Your task to perform on an android device: Open calendar and show me the second week of next month Image 0: 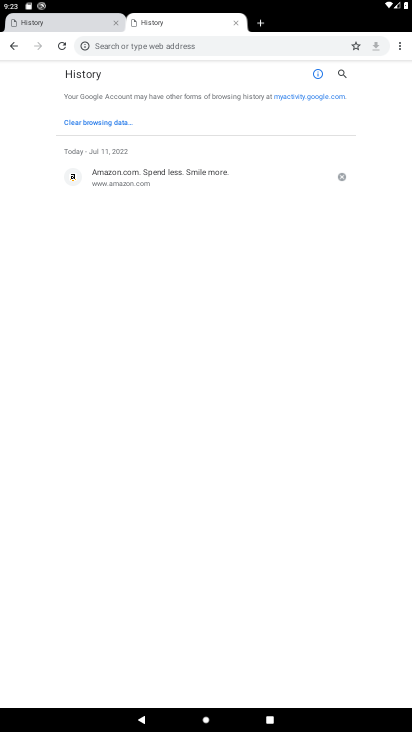
Step 0: press home button
Your task to perform on an android device: Open calendar and show me the second week of next month Image 1: 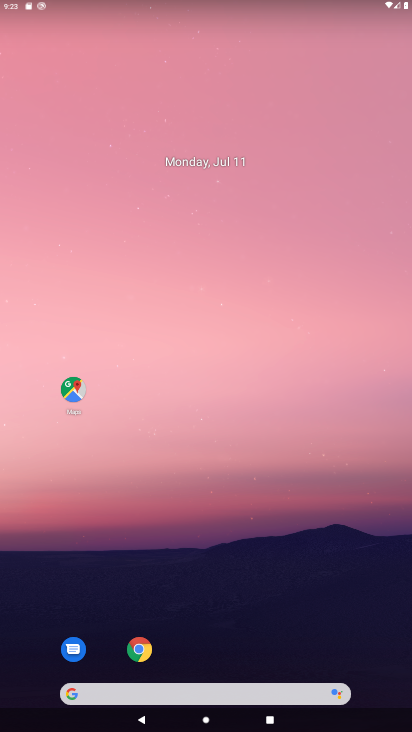
Step 1: drag from (213, 652) to (228, 237)
Your task to perform on an android device: Open calendar and show me the second week of next month Image 2: 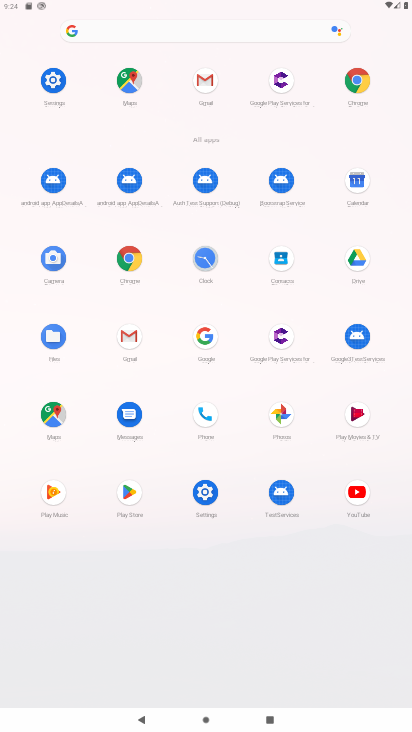
Step 2: click (353, 179)
Your task to perform on an android device: Open calendar and show me the second week of next month Image 3: 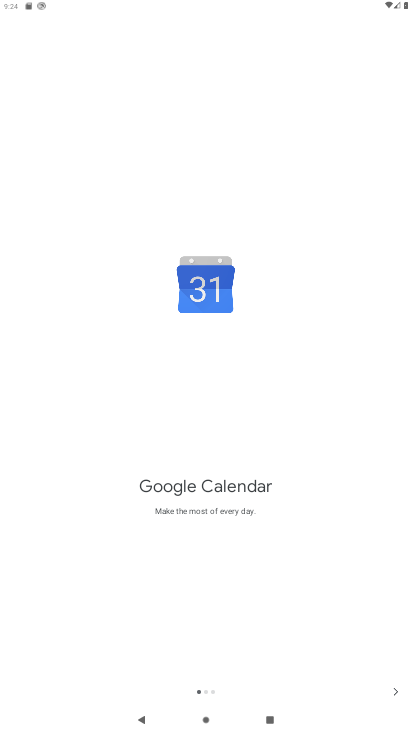
Step 3: click (396, 696)
Your task to perform on an android device: Open calendar and show me the second week of next month Image 4: 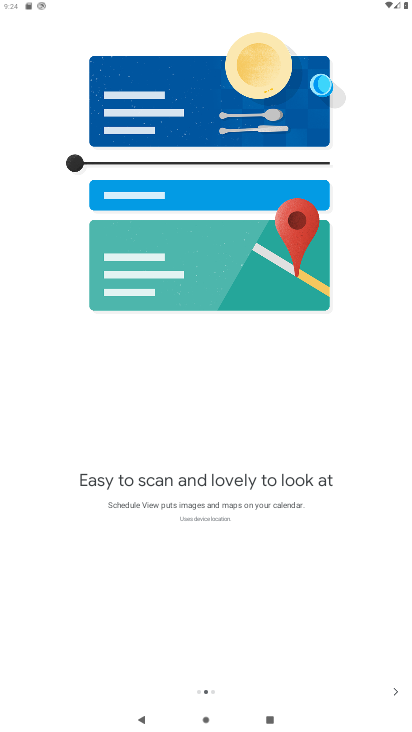
Step 4: click (394, 695)
Your task to perform on an android device: Open calendar and show me the second week of next month Image 5: 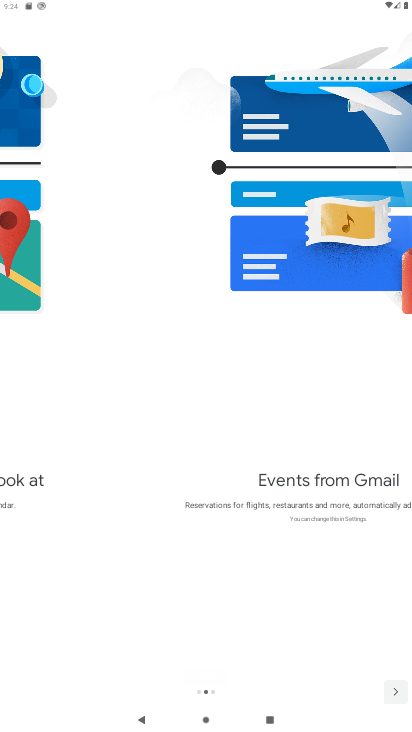
Step 5: click (394, 695)
Your task to perform on an android device: Open calendar and show me the second week of next month Image 6: 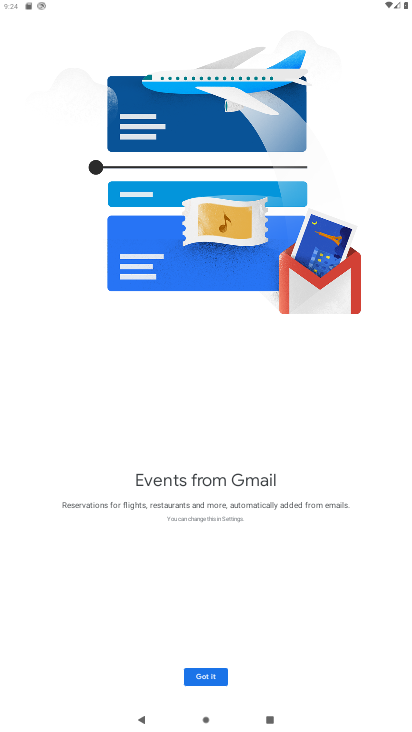
Step 6: click (222, 682)
Your task to perform on an android device: Open calendar and show me the second week of next month Image 7: 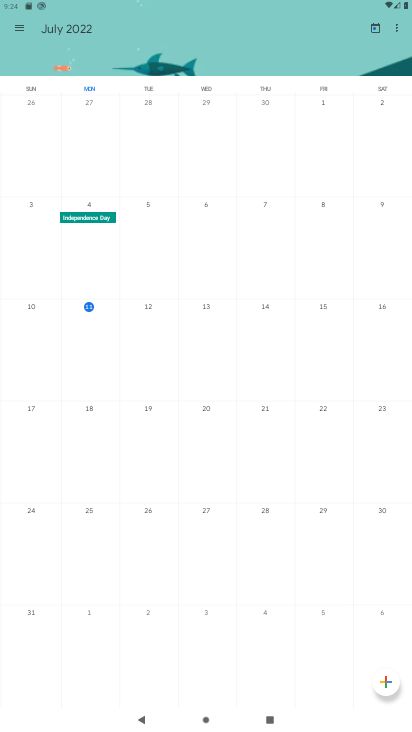
Step 7: click (14, 28)
Your task to perform on an android device: Open calendar and show me the second week of next month Image 8: 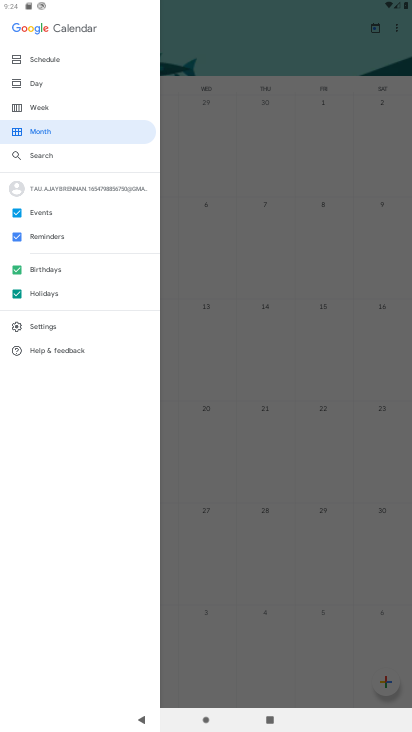
Step 8: click (50, 111)
Your task to perform on an android device: Open calendar and show me the second week of next month Image 9: 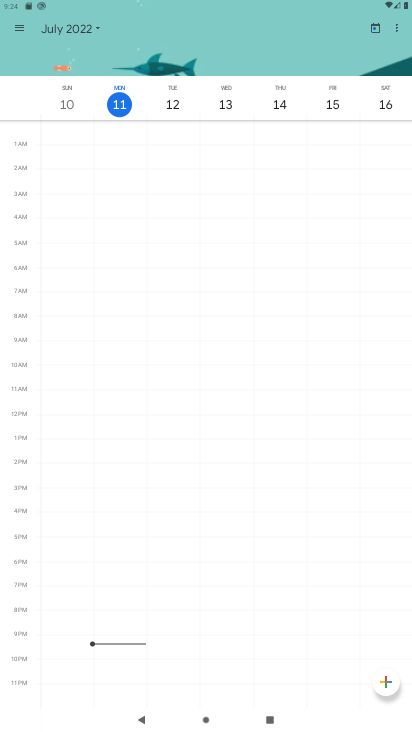
Step 9: click (86, 26)
Your task to perform on an android device: Open calendar and show me the second week of next month Image 10: 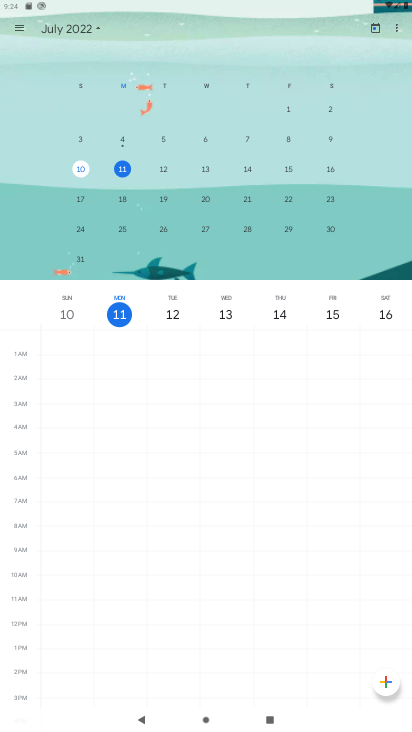
Step 10: drag from (333, 234) to (0, 167)
Your task to perform on an android device: Open calendar and show me the second week of next month Image 11: 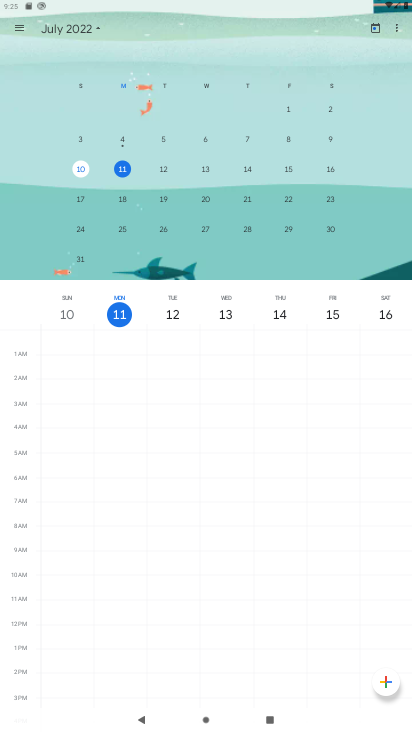
Step 11: drag from (374, 173) to (90, 170)
Your task to perform on an android device: Open calendar and show me the second week of next month Image 12: 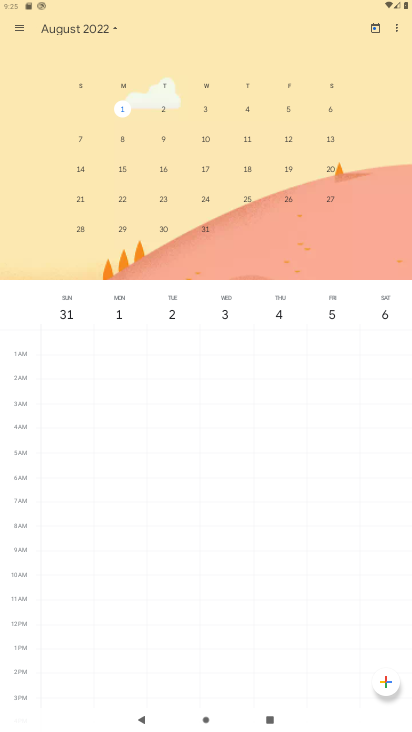
Step 12: click (210, 133)
Your task to perform on an android device: Open calendar and show me the second week of next month Image 13: 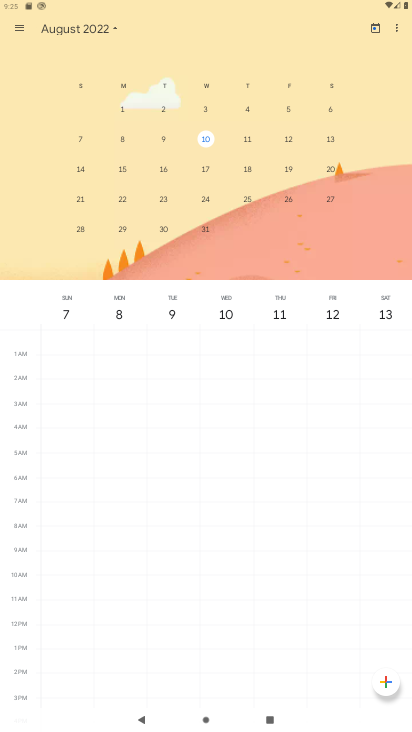
Step 13: click (204, 137)
Your task to perform on an android device: Open calendar and show me the second week of next month Image 14: 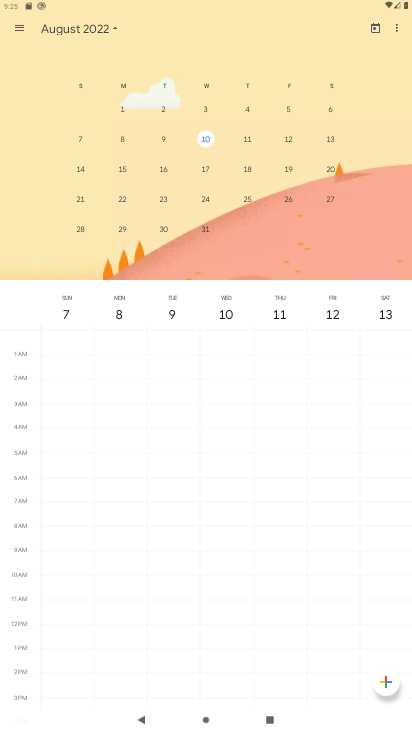
Step 14: task complete